Your task to perform on an android device: turn off priority inbox in the gmail app Image 0: 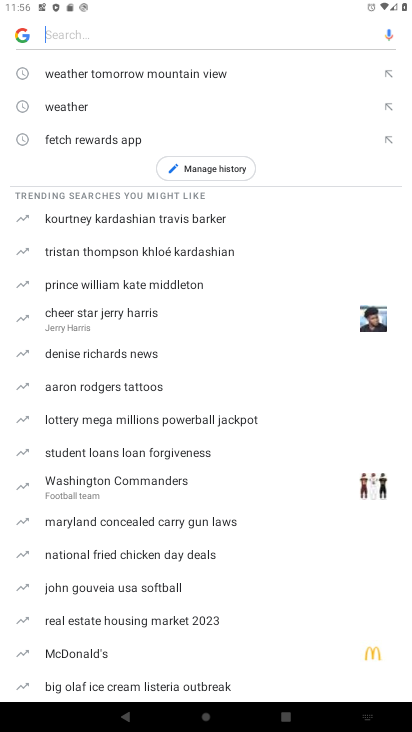
Step 0: press home button
Your task to perform on an android device: turn off priority inbox in the gmail app Image 1: 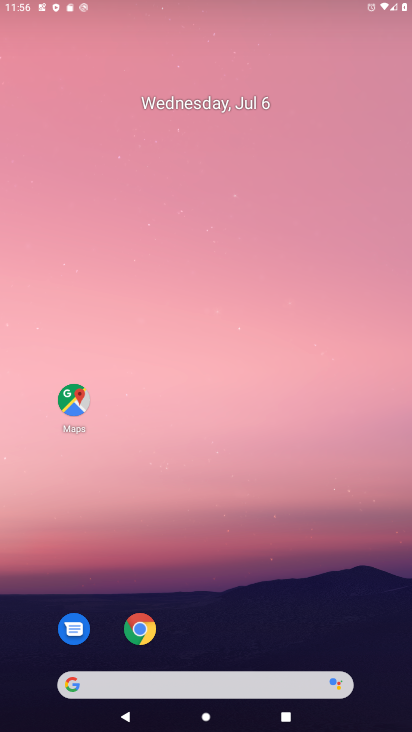
Step 1: drag from (230, 574) to (200, 117)
Your task to perform on an android device: turn off priority inbox in the gmail app Image 2: 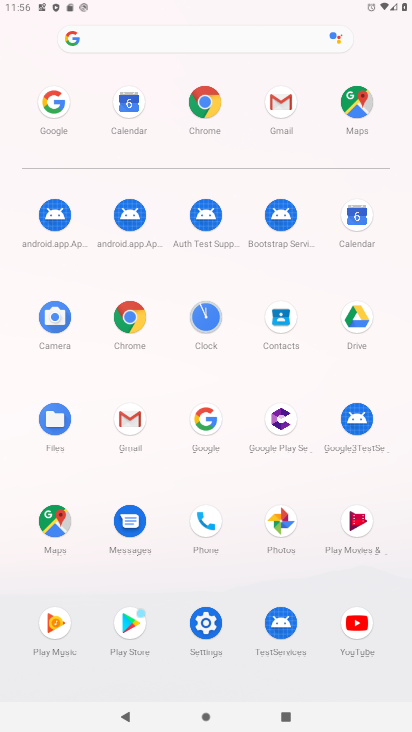
Step 2: click (267, 112)
Your task to perform on an android device: turn off priority inbox in the gmail app Image 3: 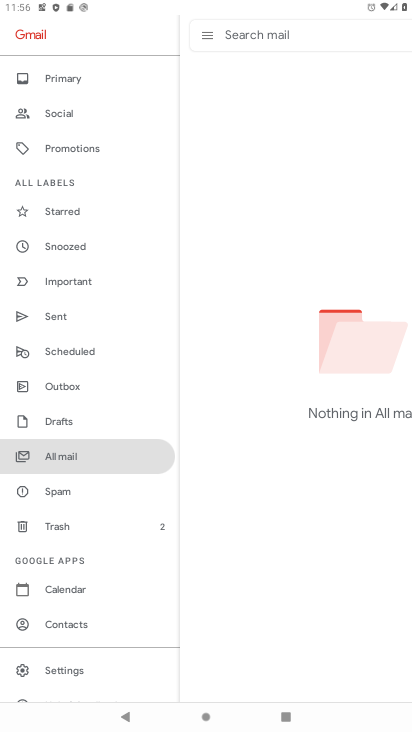
Step 3: click (61, 667)
Your task to perform on an android device: turn off priority inbox in the gmail app Image 4: 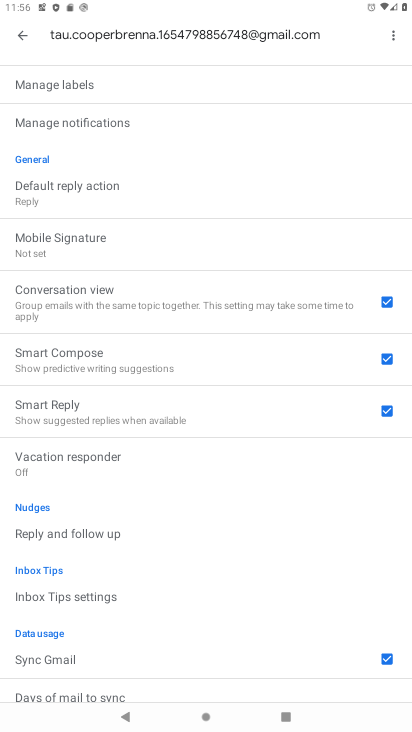
Step 4: task complete